Your task to perform on an android device: all mails in gmail Image 0: 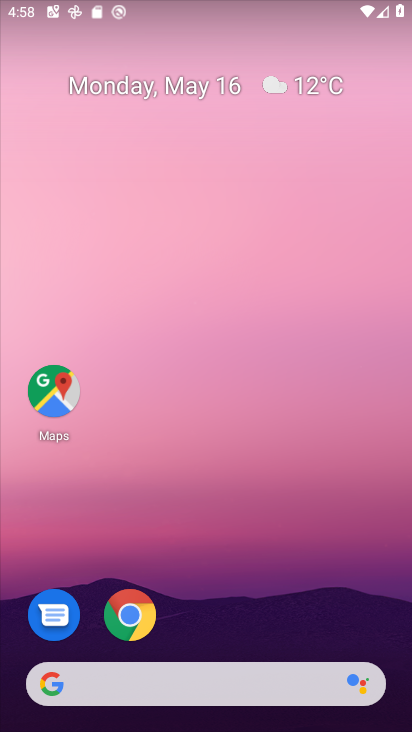
Step 0: drag from (237, 620) to (297, 66)
Your task to perform on an android device: all mails in gmail Image 1: 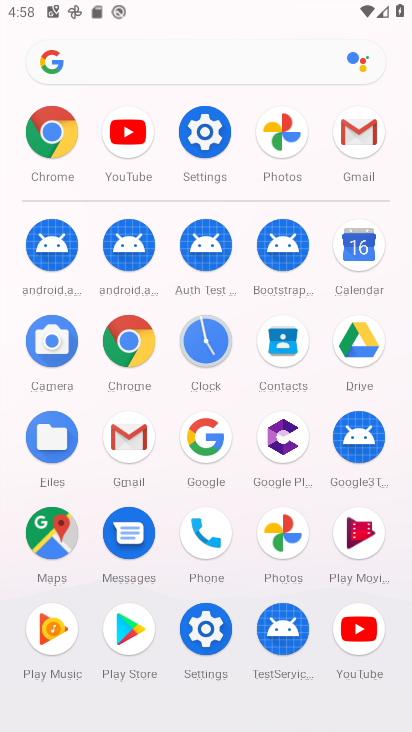
Step 1: click (119, 458)
Your task to perform on an android device: all mails in gmail Image 2: 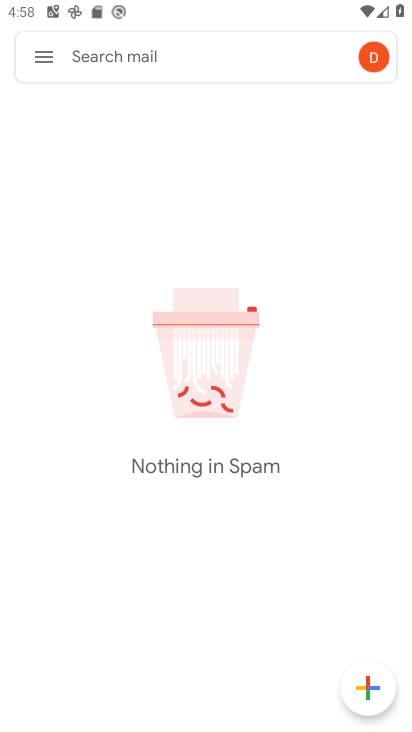
Step 2: click (50, 46)
Your task to perform on an android device: all mails in gmail Image 3: 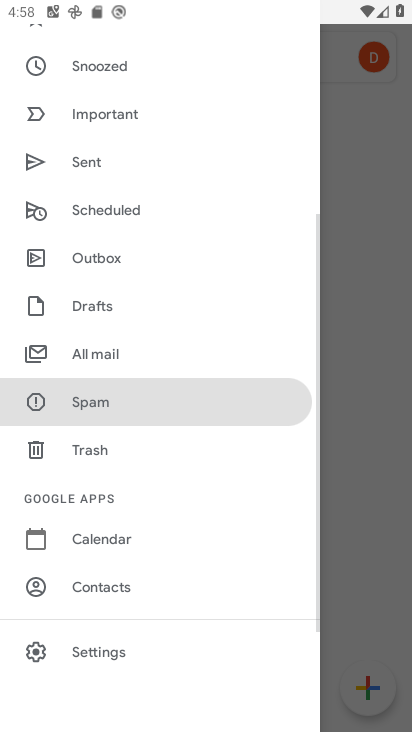
Step 3: click (83, 358)
Your task to perform on an android device: all mails in gmail Image 4: 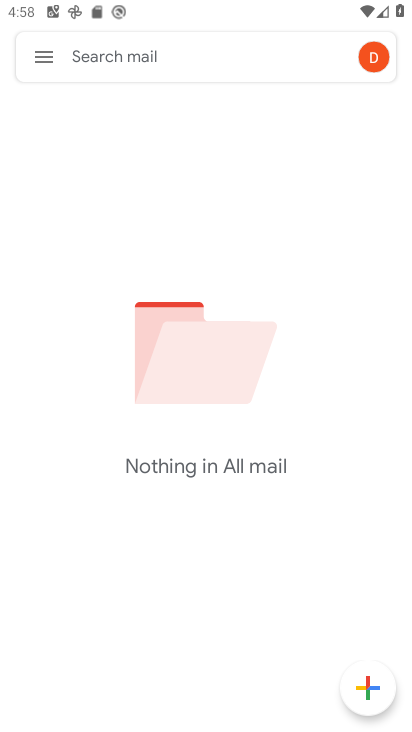
Step 4: task complete